Your task to perform on an android device: turn on translation in the chrome app Image 0: 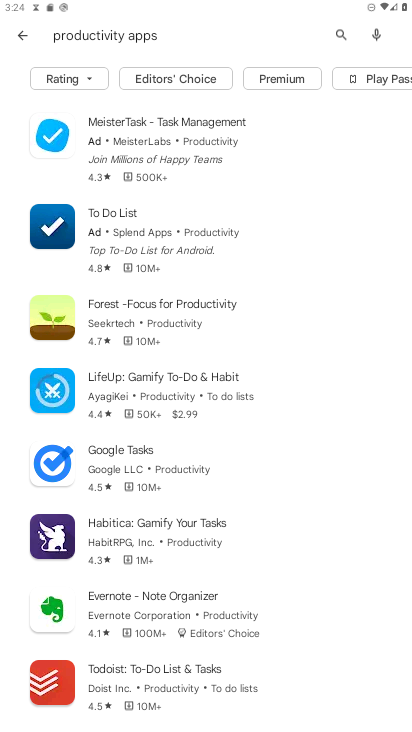
Step 0: press home button
Your task to perform on an android device: turn on translation in the chrome app Image 1: 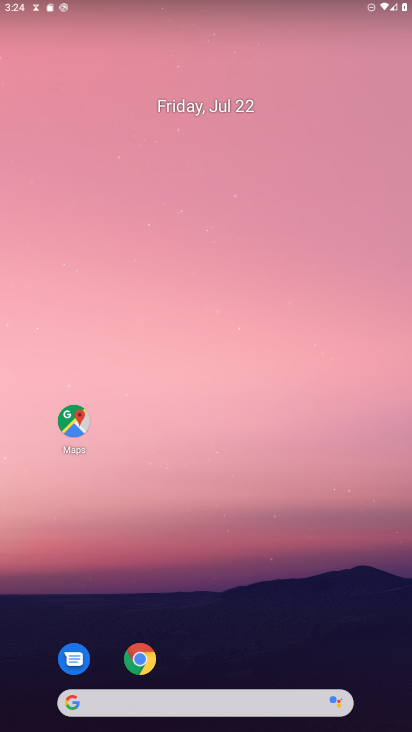
Step 1: drag from (278, 661) to (360, 1)
Your task to perform on an android device: turn on translation in the chrome app Image 2: 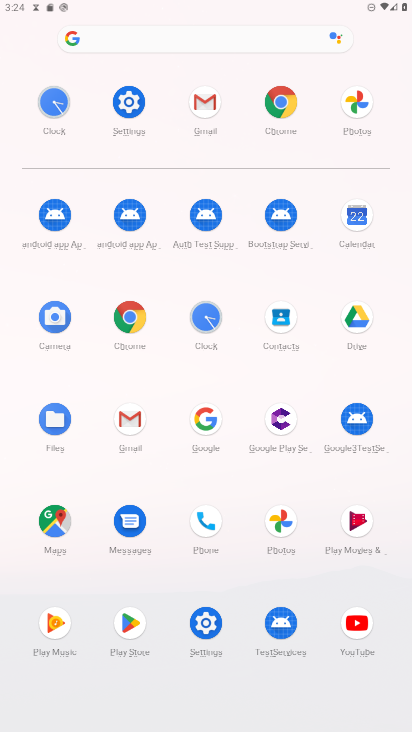
Step 2: click (286, 104)
Your task to perform on an android device: turn on translation in the chrome app Image 3: 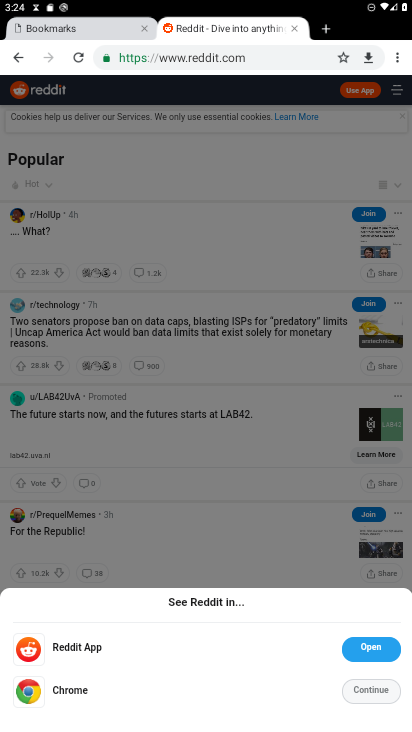
Step 3: drag from (394, 61) to (287, 388)
Your task to perform on an android device: turn on translation in the chrome app Image 4: 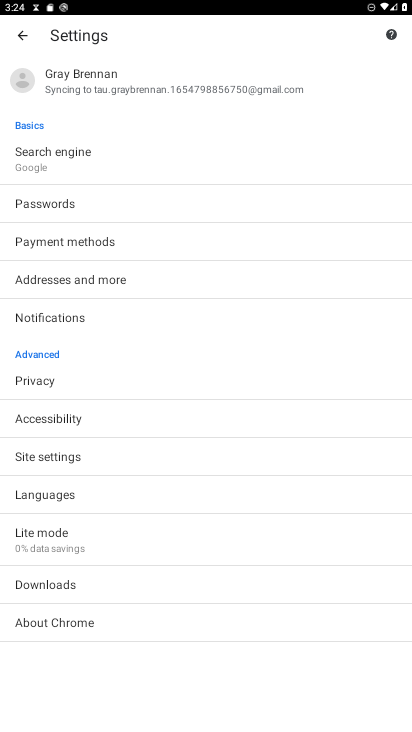
Step 4: click (74, 501)
Your task to perform on an android device: turn on translation in the chrome app Image 5: 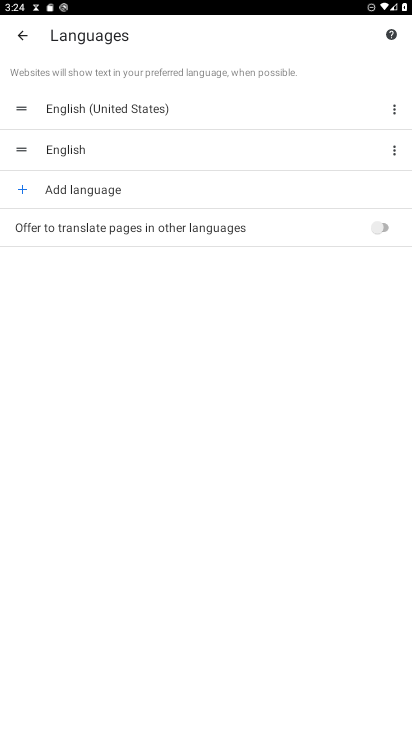
Step 5: click (383, 229)
Your task to perform on an android device: turn on translation in the chrome app Image 6: 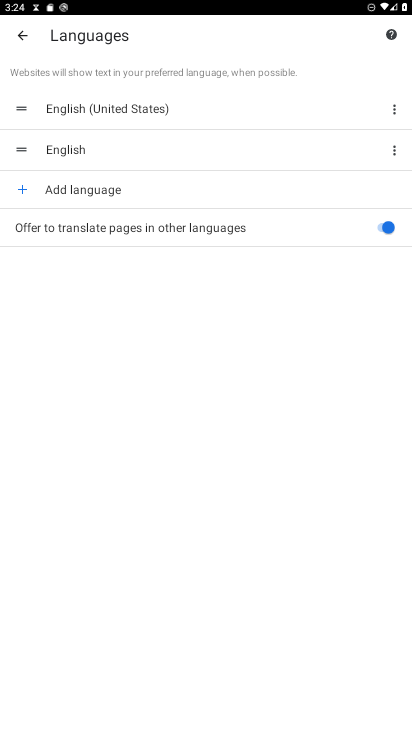
Step 6: task complete